Your task to perform on an android device: add a label to a message in the gmail app Image 0: 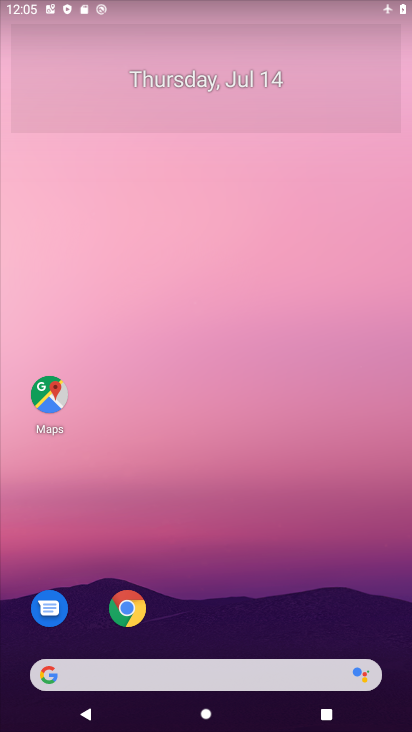
Step 0: drag from (170, 709) to (227, 3)
Your task to perform on an android device: add a label to a message in the gmail app Image 1: 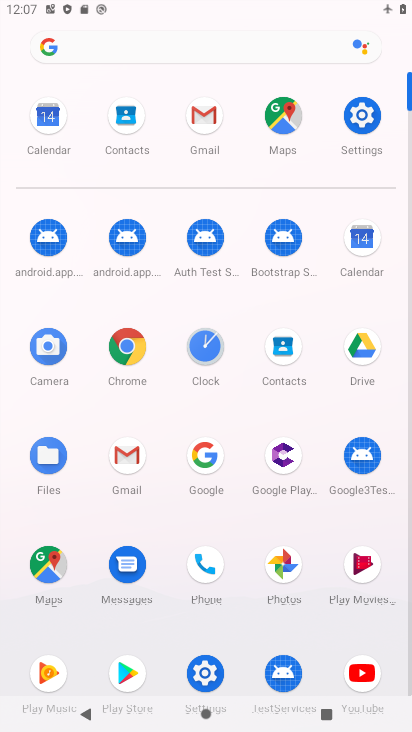
Step 1: click (185, 120)
Your task to perform on an android device: add a label to a message in the gmail app Image 2: 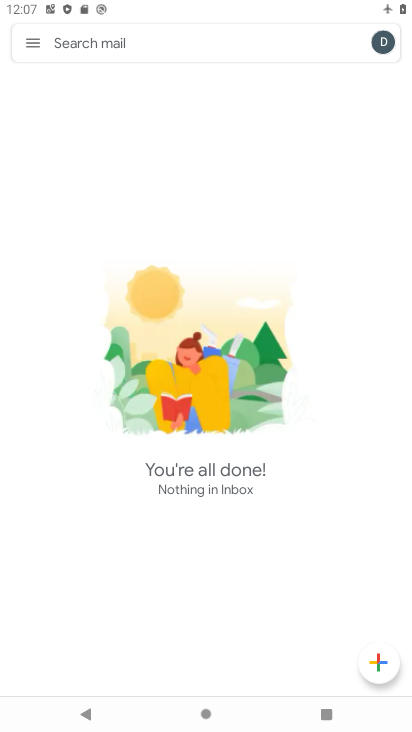
Step 2: task complete